Your task to perform on an android device: Open calendar and show me the fourth week of next month Image 0: 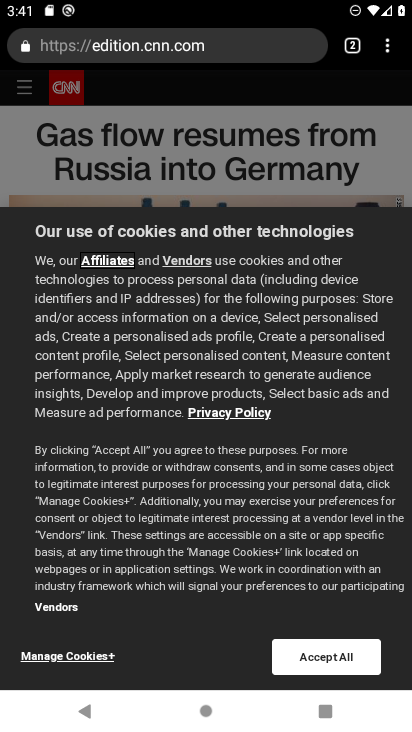
Step 0: press home button
Your task to perform on an android device: Open calendar and show me the fourth week of next month Image 1: 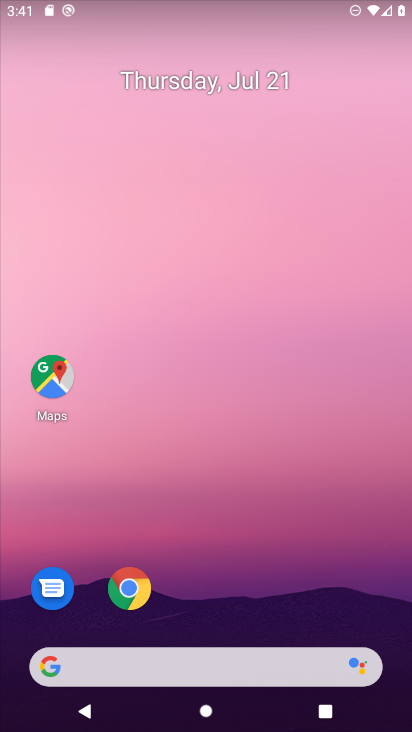
Step 1: drag from (140, 671) to (236, 84)
Your task to perform on an android device: Open calendar and show me the fourth week of next month Image 2: 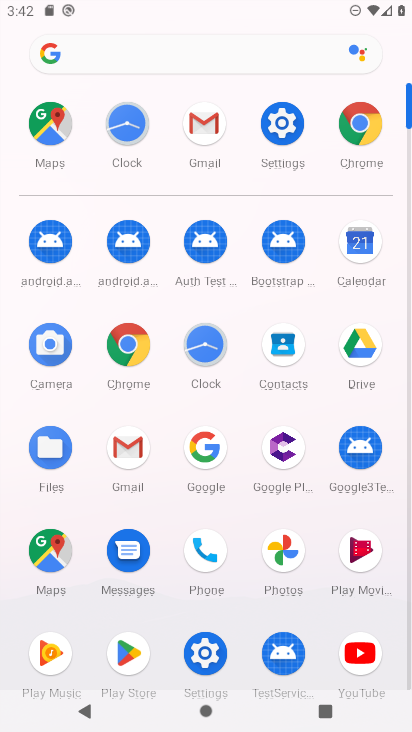
Step 2: click (359, 259)
Your task to perform on an android device: Open calendar and show me the fourth week of next month Image 3: 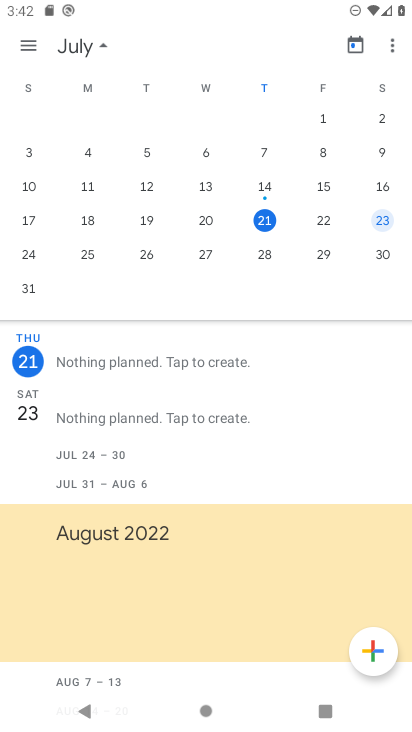
Step 3: drag from (15, 209) to (60, 388)
Your task to perform on an android device: Open calendar and show me the fourth week of next month Image 4: 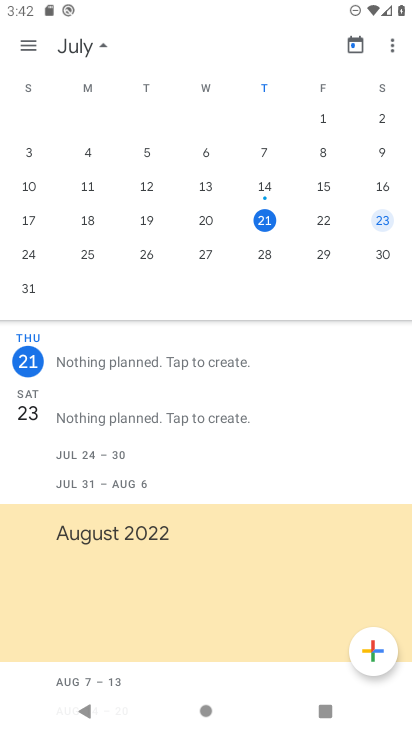
Step 4: drag from (379, 245) to (6, 196)
Your task to perform on an android device: Open calendar and show me the fourth week of next month Image 5: 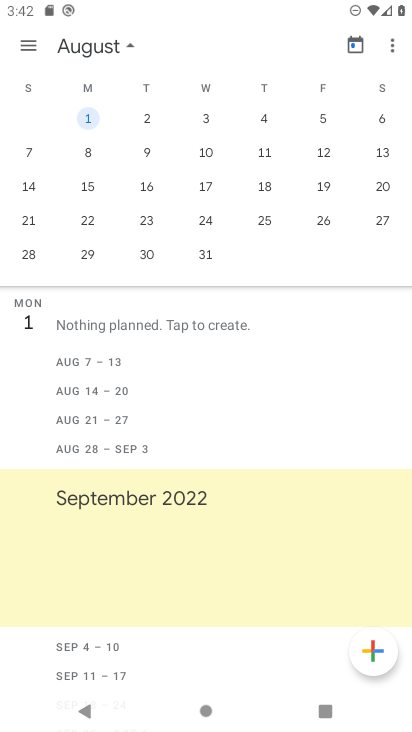
Step 5: click (90, 258)
Your task to perform on an android device: Open calendar and show me the fourth week of next month Image 6: 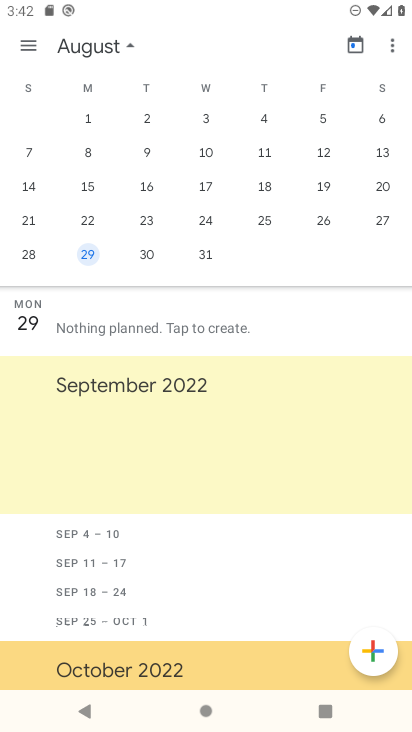
Step 6: task complete